Your task to perform on an android device: toggle sleep mode Image 0: 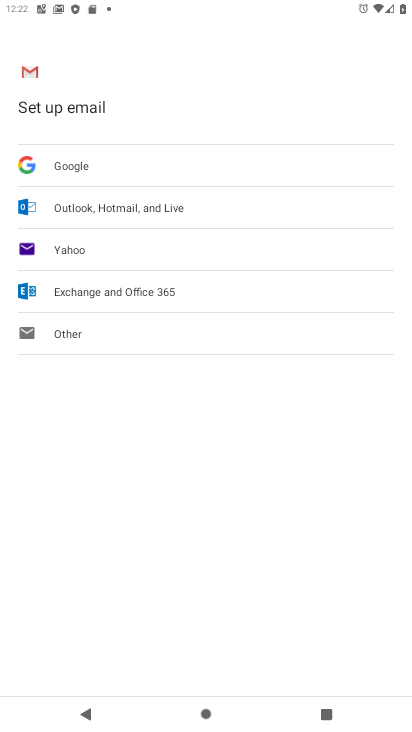
Step 0: press home button
Your task to perform on an android device: toggle sleep mode Image 1: 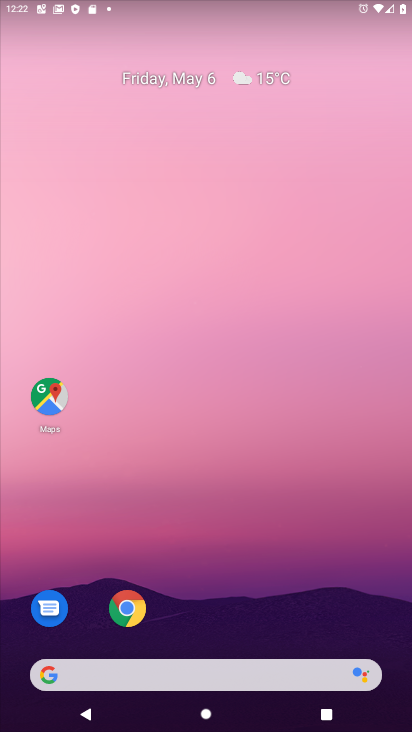
Step 1: drag from (281, 556) to (301, 109)
Your task to perform on an android device: toggle sleep mode Image 2: 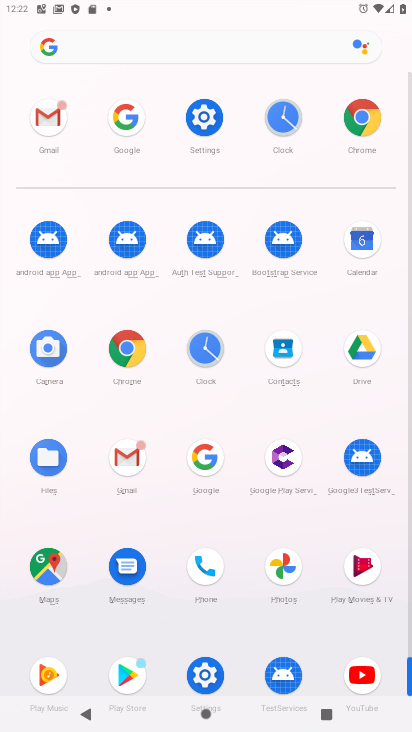
Step 2: click (202, 121)
Your task to perform on an android device: toggle sleep mode Image 3: 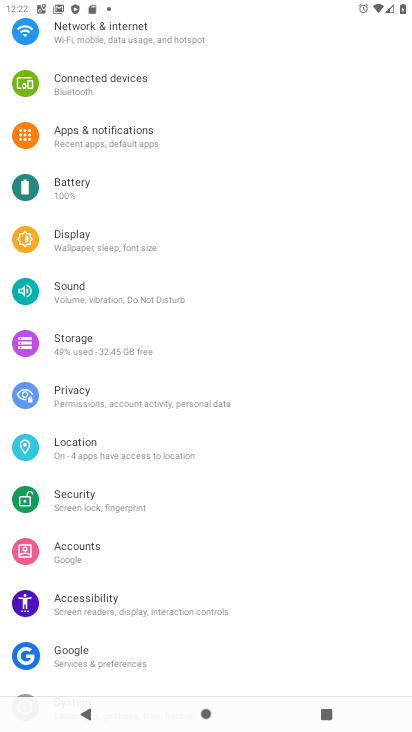
Step 3: click (84, 238)
Your task to perform on an android device: toggle sleep mode Image 4: 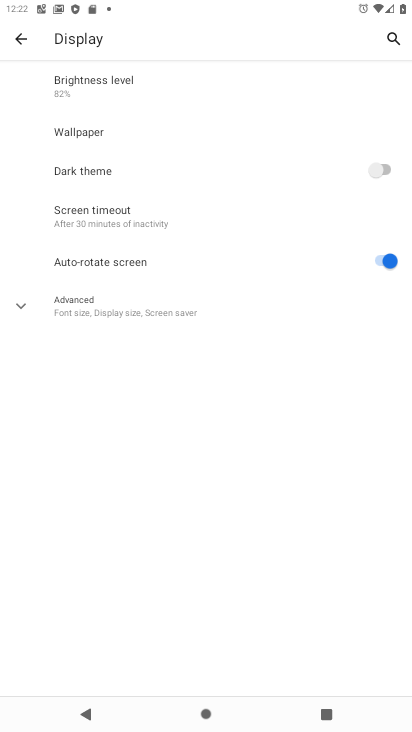
Step 4: click (16, 303)
Your task to perform on an android device: toggle sleep mode Image 5: 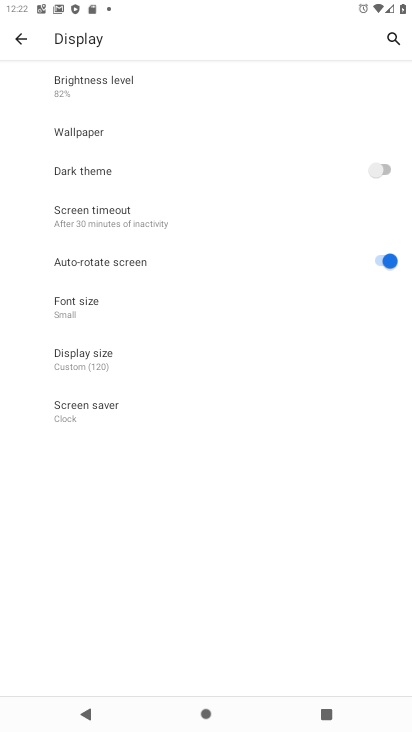
Step 5: task complete